Your task to perform on an android device: change the clock display to analog Image 0: 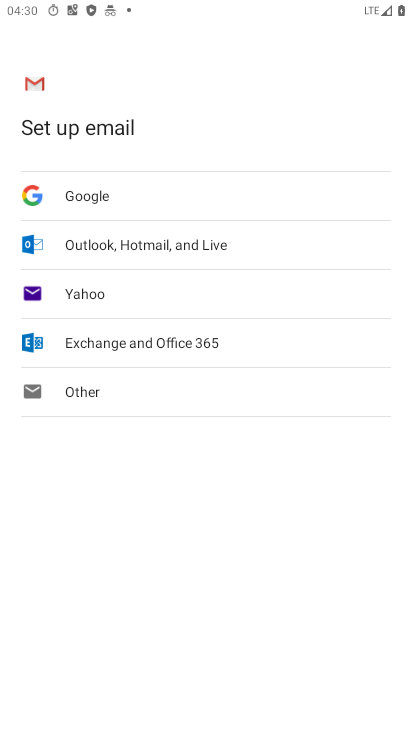
Step 0: press home button
Your task to perform on an android device: change the clock display to analog Image 1: 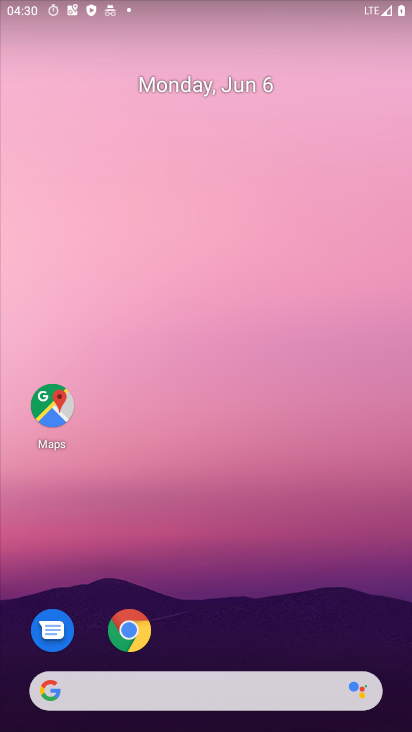
Step 1: drag from (291, 635) to (150, 233)
Your task to perform on an android device: change the clock display to analog Image 2: 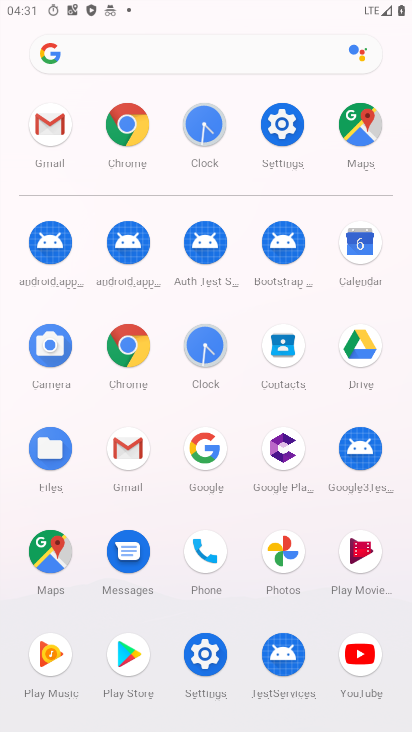
Step 2: click (202, 350)
Your task to perform on an android device: change the clock display to analog Image 3: 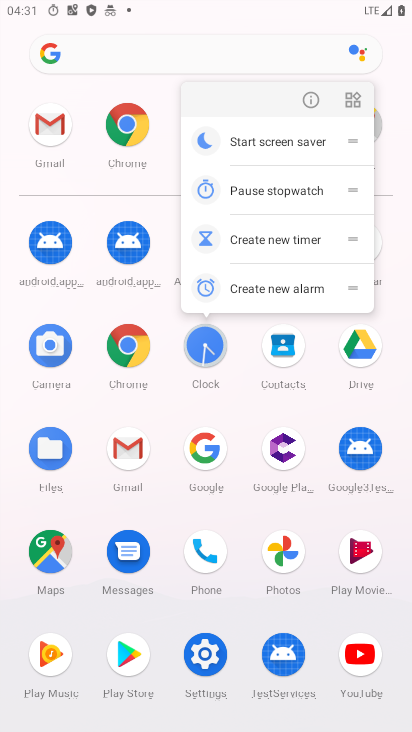
Step 3: click (206, 353)
Your task to perform on an android device: change the clock display to analog Image 4: 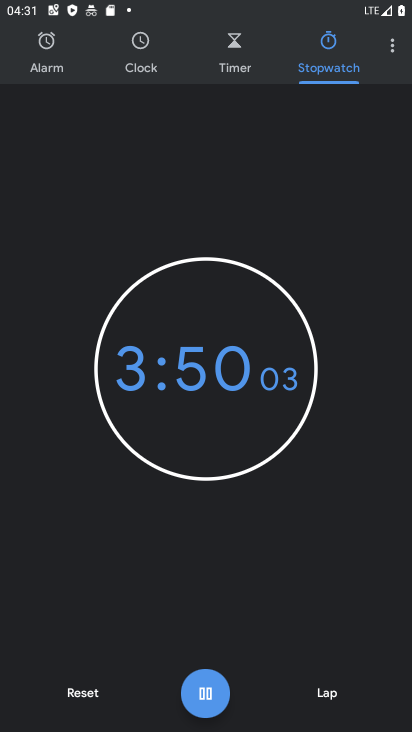
Step 4: click (390, 55)
Your task to perform on an android device: change the clock display to analog Image 5: 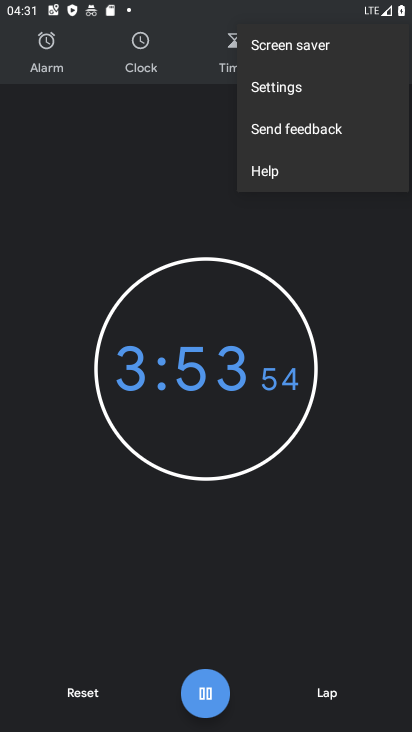
Step 5: click (266, 81)
Your task to perform on an android device: change the clock display to analog Image 6: 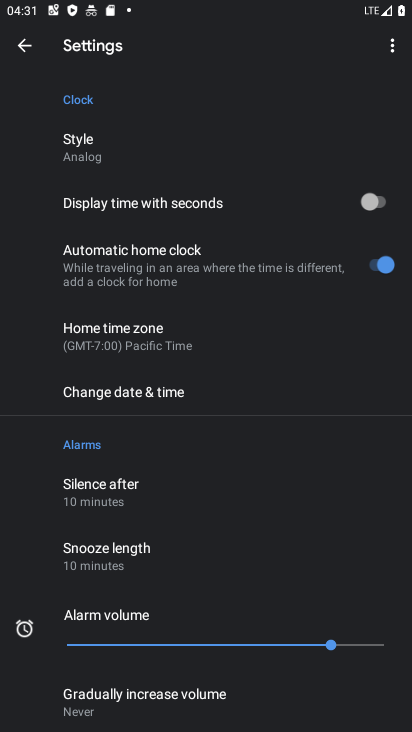
Step 6: click (106, 161)
Your task to perform on an android device: change the clock display to analog Image 7: 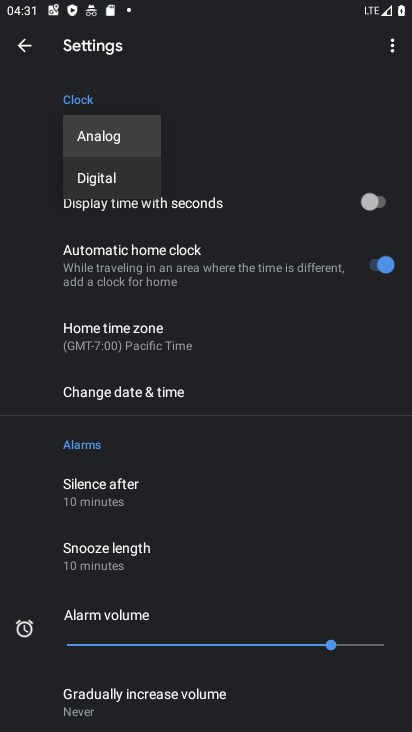
Step 7: click (104, 148)
Your task to perform on an android device: change the clock display to analog Image 8: 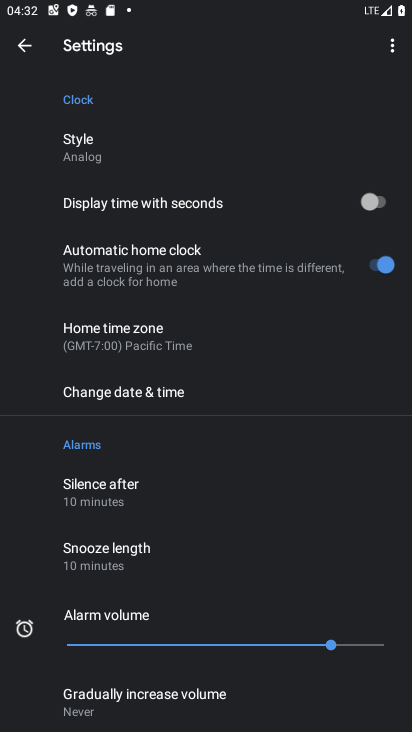
Step 8: task complete